Your task to perform on an android device: What is the recent news? Image 0: 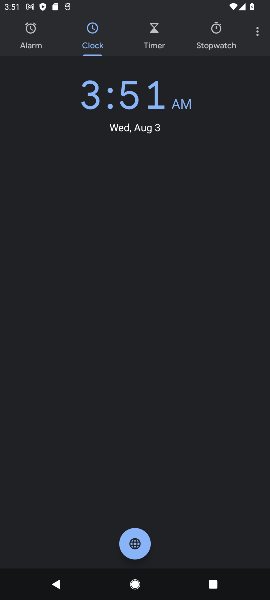
Step 0: press home button
Your task to perform on an android device: What is the recent news? Image 1: 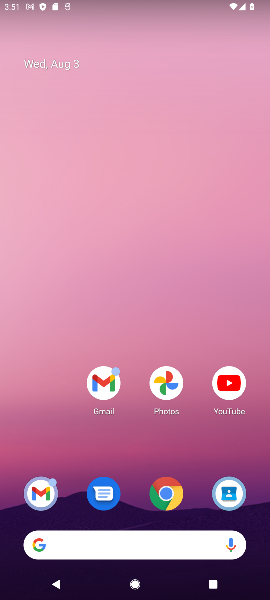
Step 1: task complete